Your task to perform on an android device: Go to Android settings Image 0: 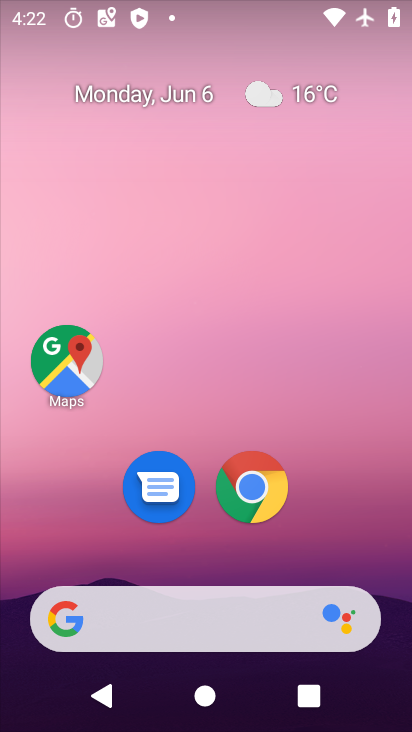
Step 0: drag from (367, 422) to (328, 132)
Your task to perform on an android device: Go to Android settings Image 1: 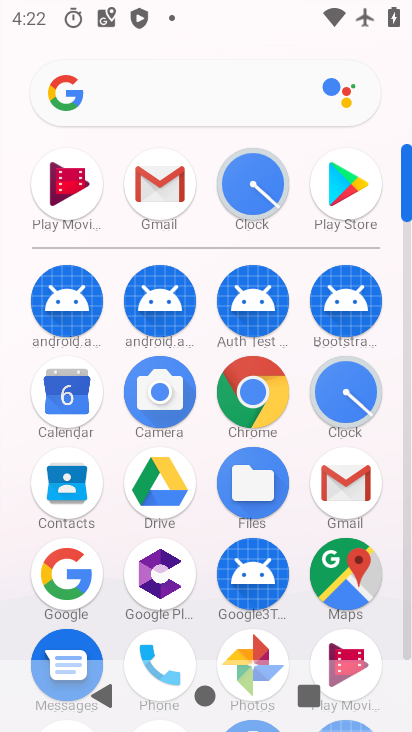
Step 1: drag from (218, 535) to (265, 135)
Your task to perform on an android device: Go to Android settings Image 2: 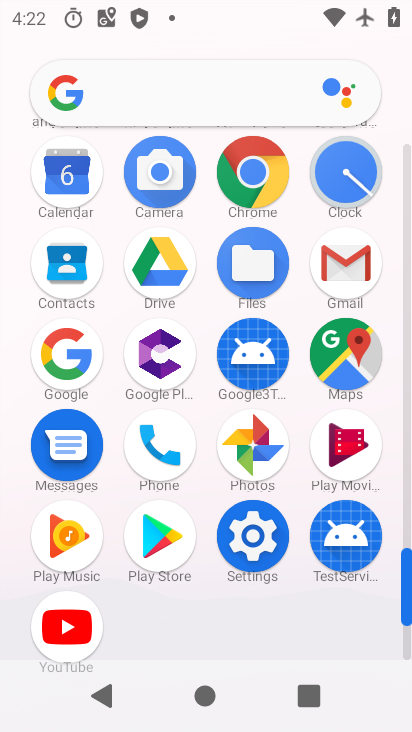
Step 2: click (249, 554)
Your task to perform on an android device: Go to Android settings Image 3: 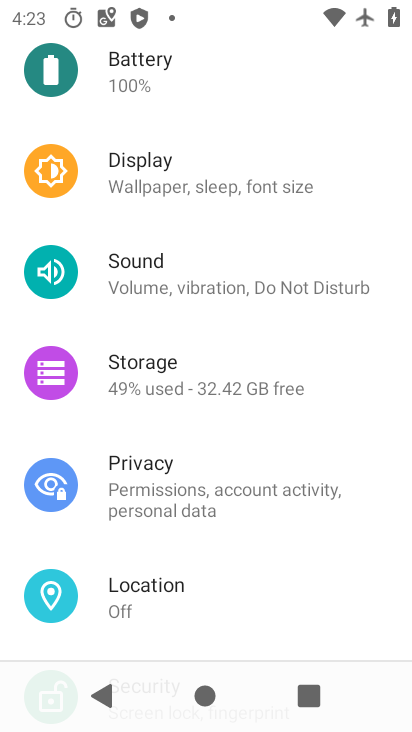
Step 3: task complete